Your task to perform on an android device: Show me popular games on the Play Store Image 0: 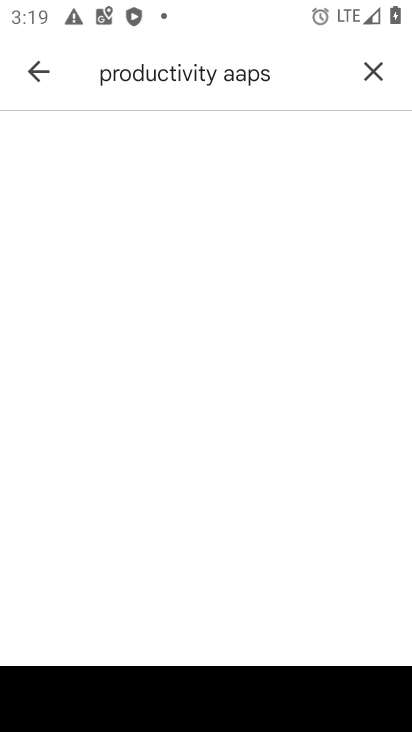
Step 0: press home button
Your task to perform on an android device: Show me popular games on the Play Store Image 1: 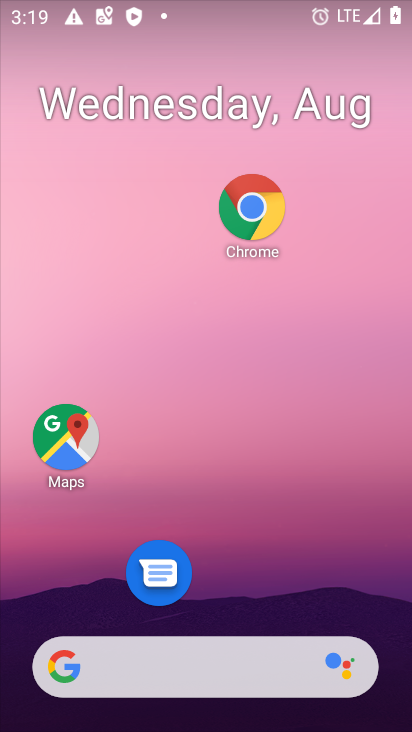
Step 1: drag from (229, 669) to (337, 95)
Your task to perform on an android device: Show me popular games on the Play Store Image 2: 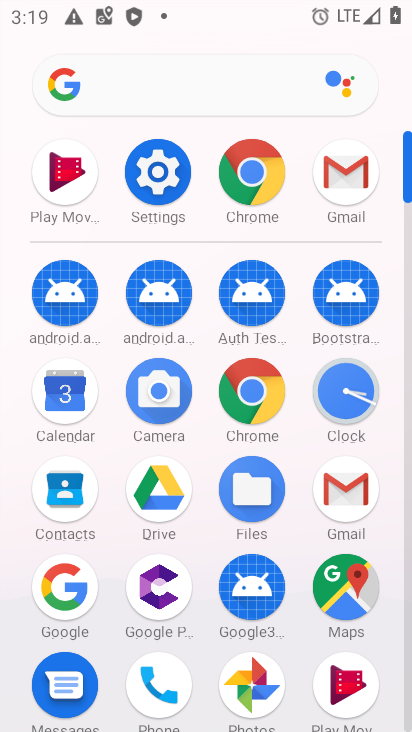
Step 2: drag from (230, 566) to (292, 202)
Your task to perform on an android device: Show me popular games on the Play Store Image 3: 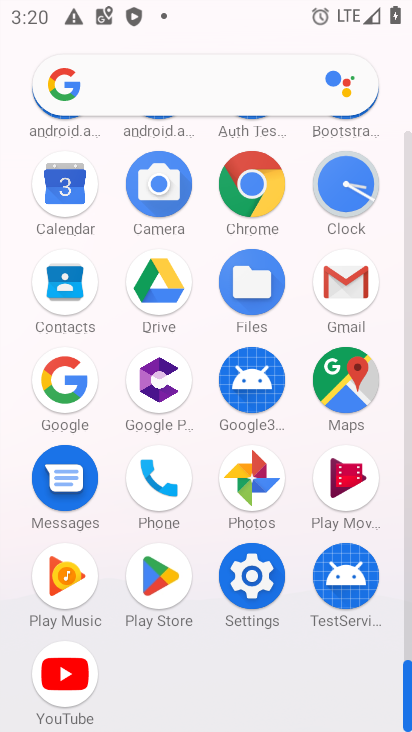
Step 3: click (185, 574)
Your task to perform on an android device: Show me popular games on the Play Store Image 4: 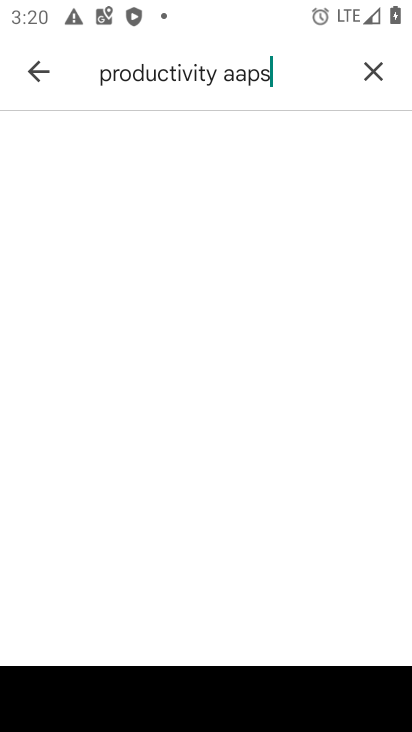
Step 4: click (17, 67)
Your task to perform on an android device: Show me popular games on the Play Store Image 5: 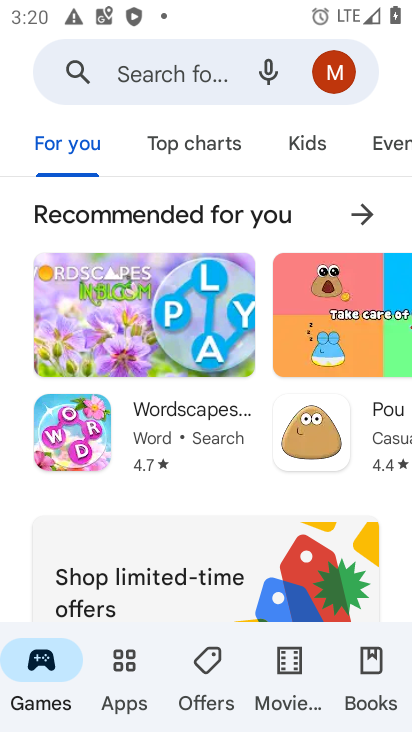
Step 5: task complete